Your task to perform on an android device: toggle translation in the chrome app Image 0: 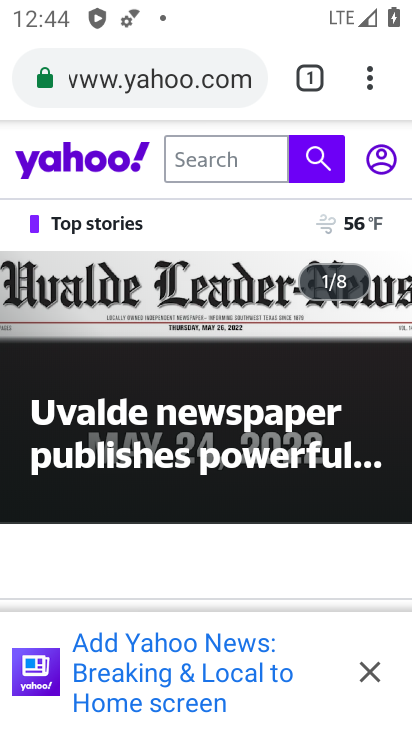
Step 0: drag from (374, 67) to (169, 631)
Your task to perform on an android device: toggle translation in the chrome app Image 1: 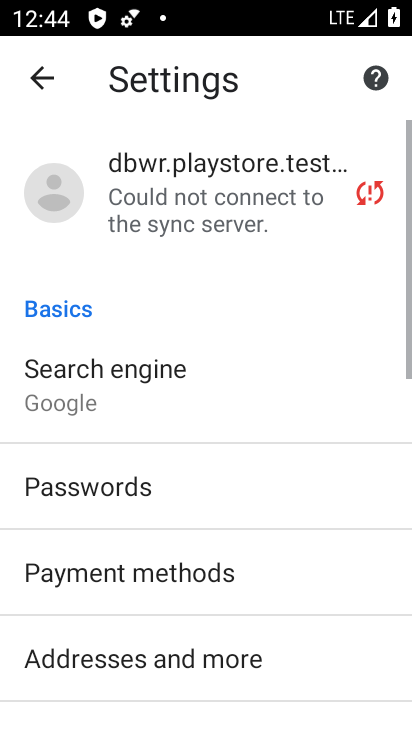
Step 1: drag from (169, 630) to (410, 72)
Your task to perform on an android device: toggle translation in the chrome app Image 2: 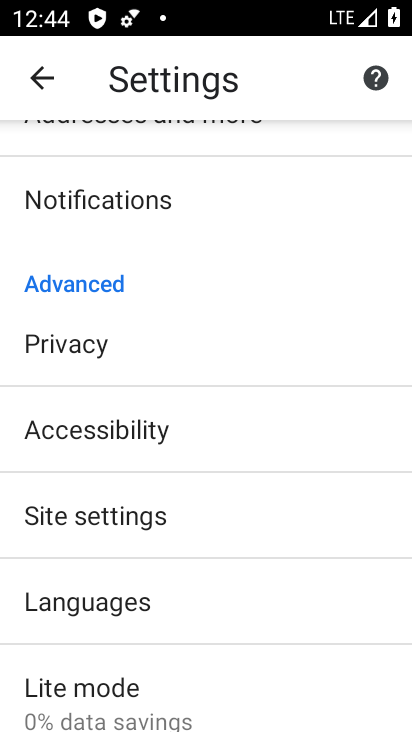
Step 2: click (134, 589)
Your task to perform on an android device: toggle translation in the chrome app Image 3: 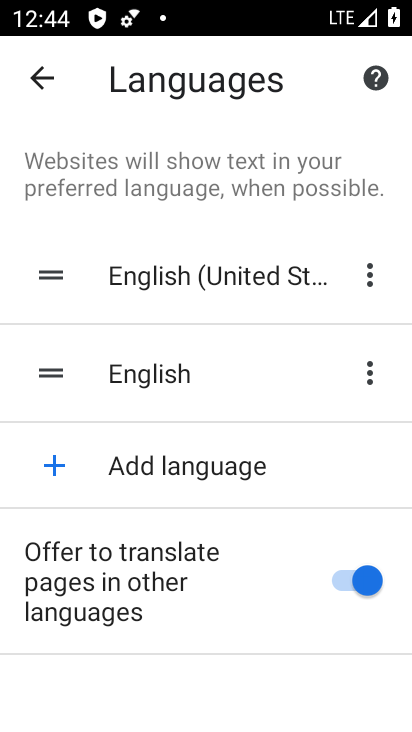
Step 3: click (378, 562)
Your task to perform on an android device: toggle translation in the chrome app Image 4: 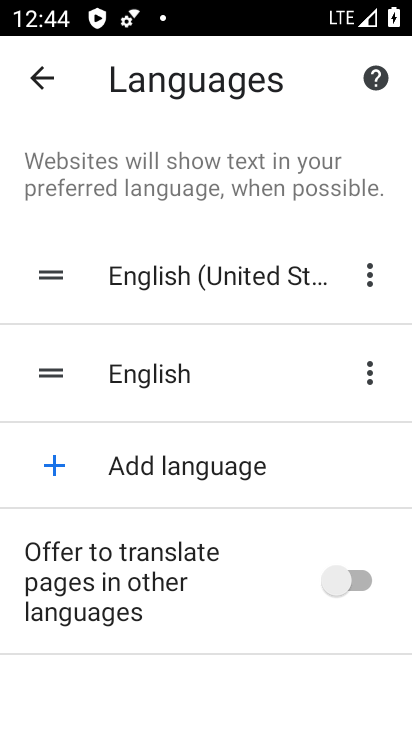
Step 4: task complete